Your task to perform on an android device: When is my next appointment? Image 0: 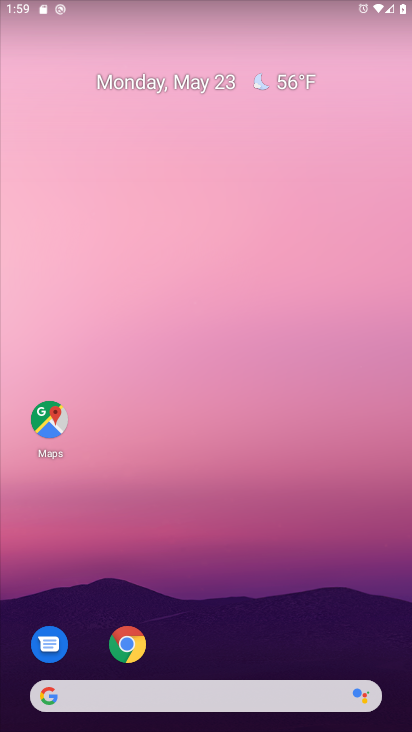
Step 0: drag from (275, 597) to (244, 217)
Your task to perform on an android device: When is my next appointment? Image 1: 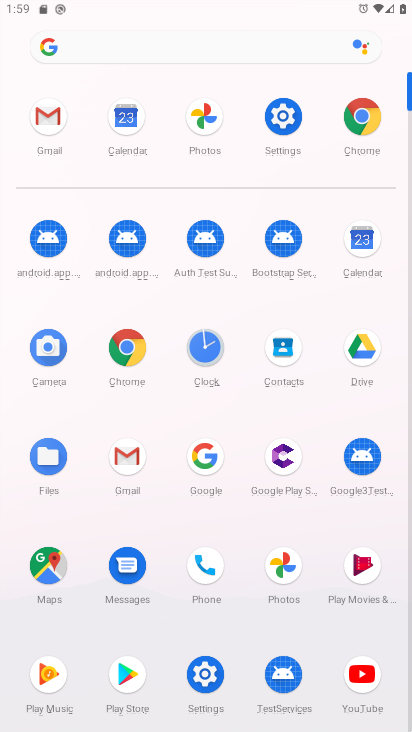
Step 1: click (359, 260)
Your task to perform on an android device: When is my next appointment? Image 2: 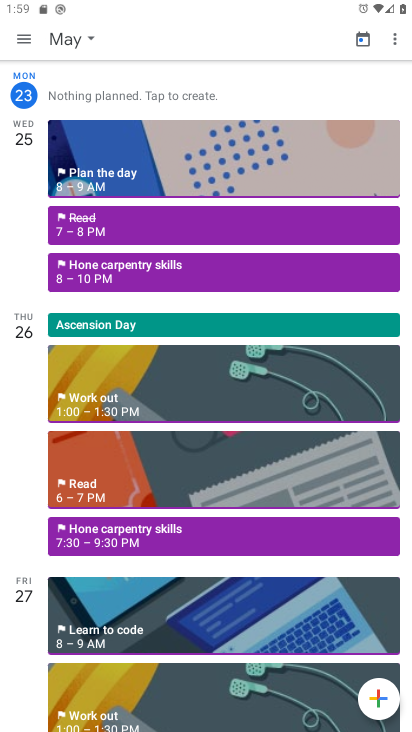
Step 2: task complete